Your task to perform on an android device: visit the assistant section in the google photos Image 0: 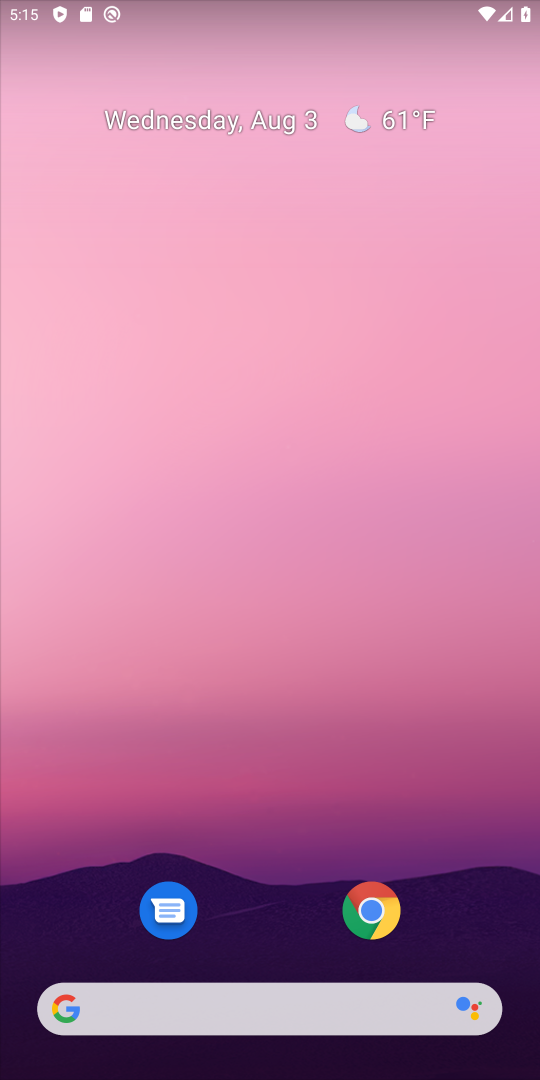
Step 0: press home button
Your task to perform on an android device: visit the assistant section in the google photos Image 1: 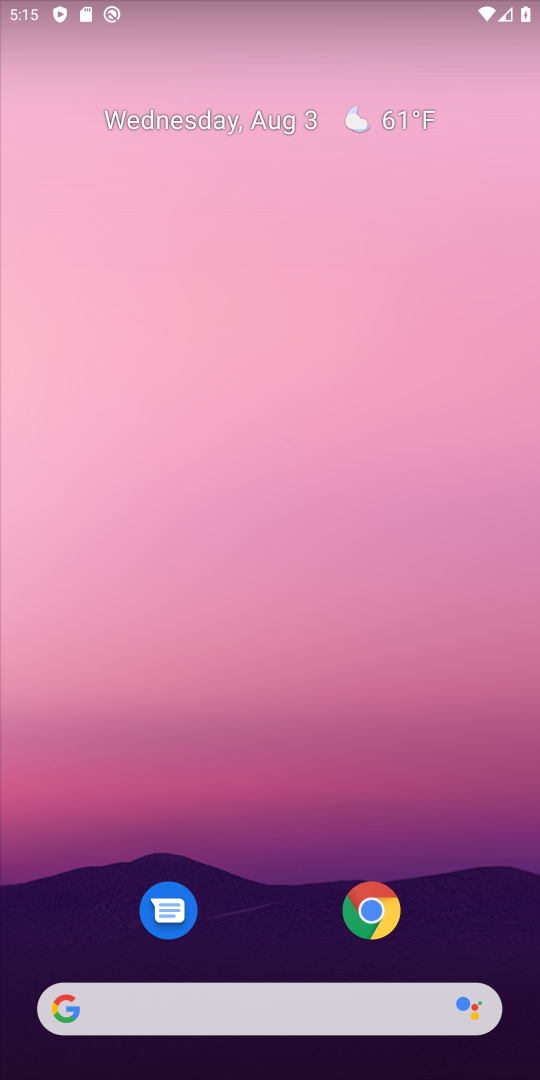
Step 1: drag from (278, 913) to (426, 13)
Your task to perform on an android device: visit the assistant section in the google photos Image 2: 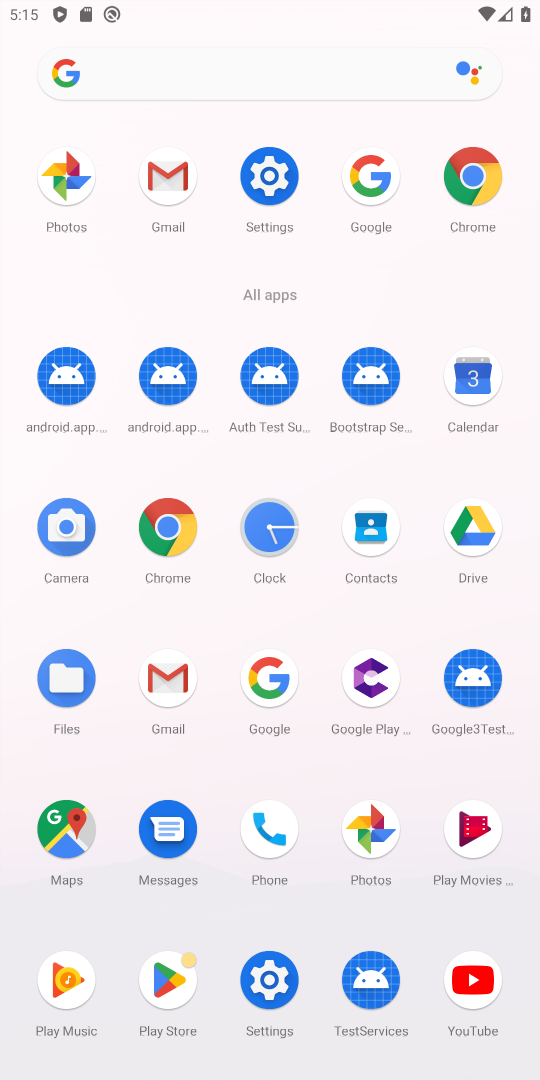
Step 2: click (363, 822)
Your task to perform on an android device: visit the assistant section in the google photos Image 3: 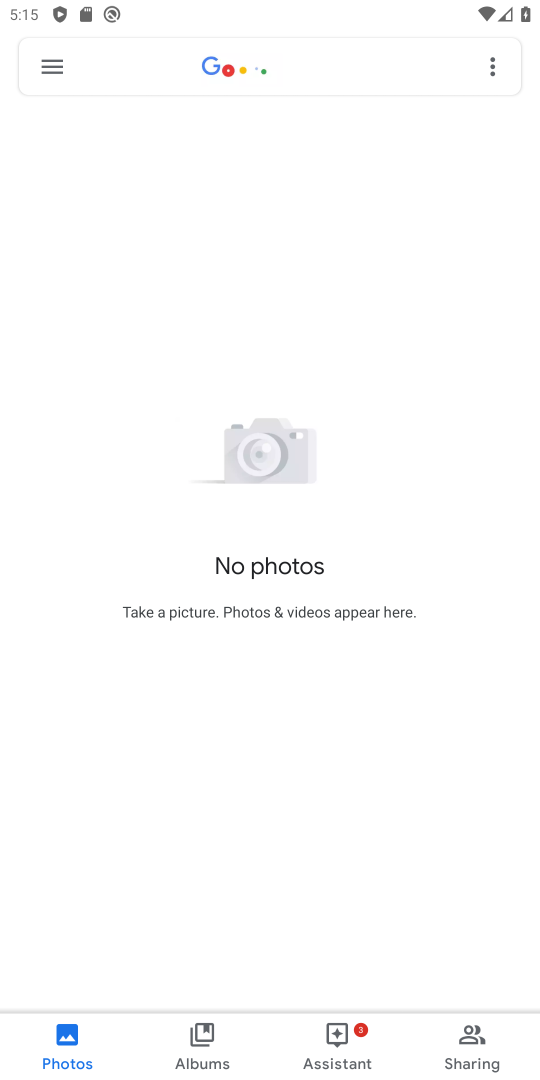
Step 3: click (319, 1028)
Your task to perform on an android device: visit the assistant section in the google photos Image 4: 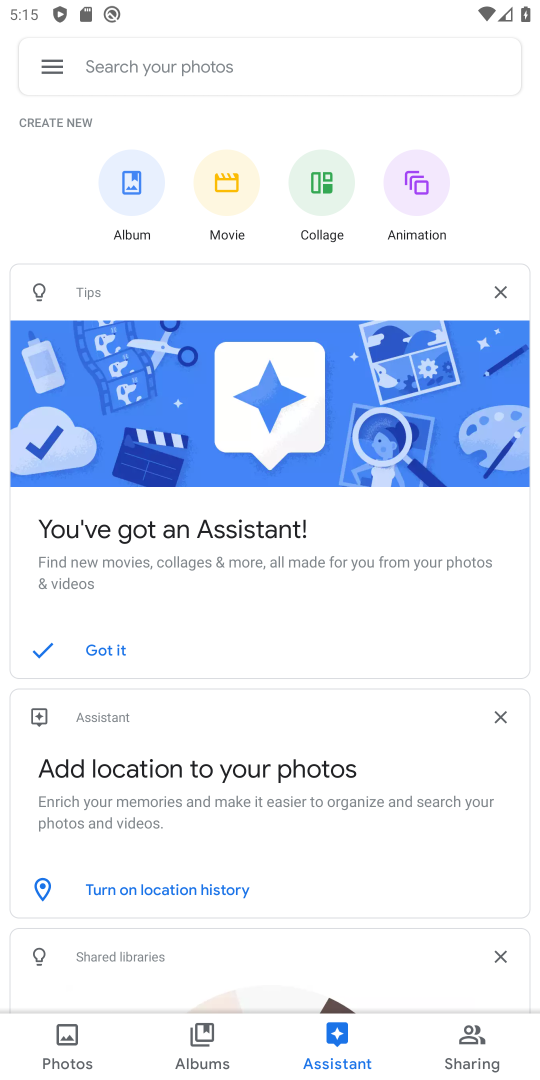
Step 4: task complete